Your task to perform on an android device: open app "AliExpress" (install if not already installed), go to login, and select forgot password Image 0: 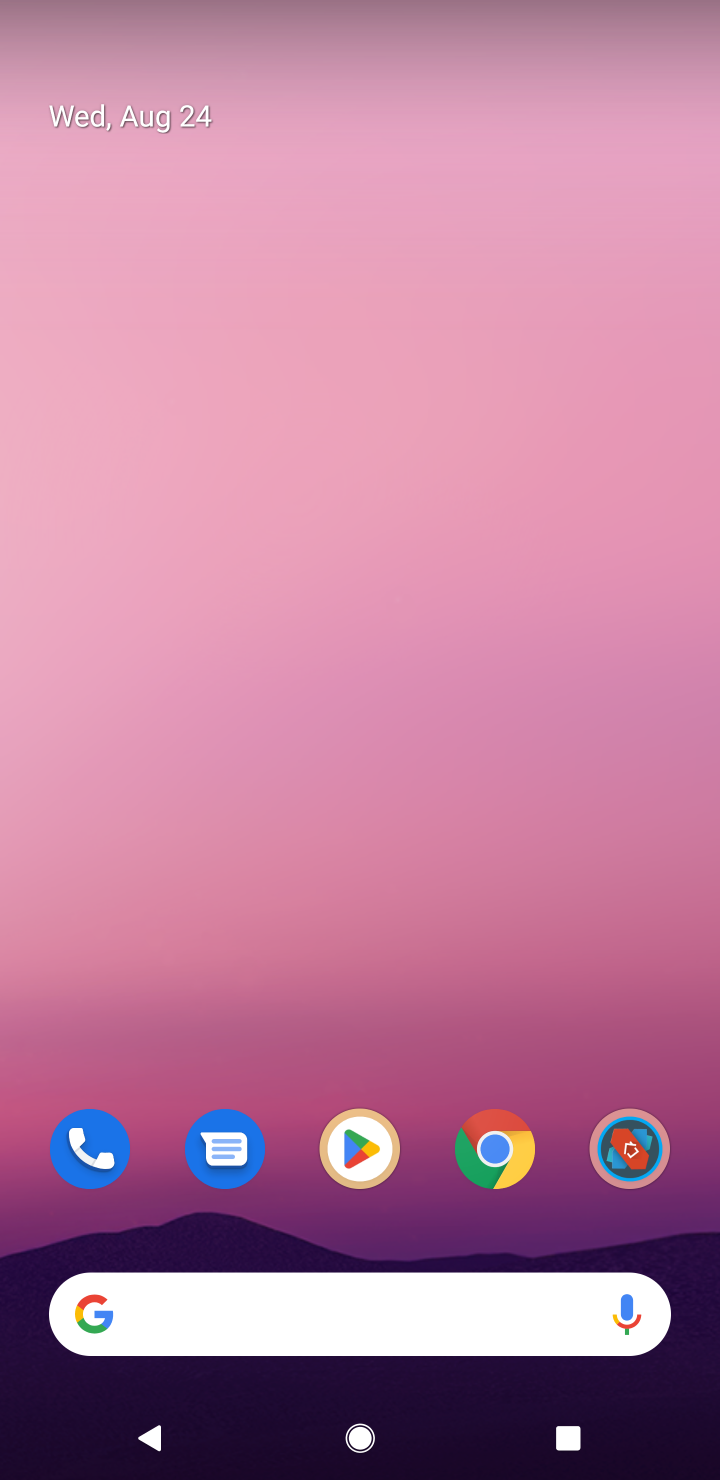
Step 0: click (365, 1146)
Your task to perform on an android device: open app "AliExpress" (install if not already installed), go to login, and select forgot password Image 1: 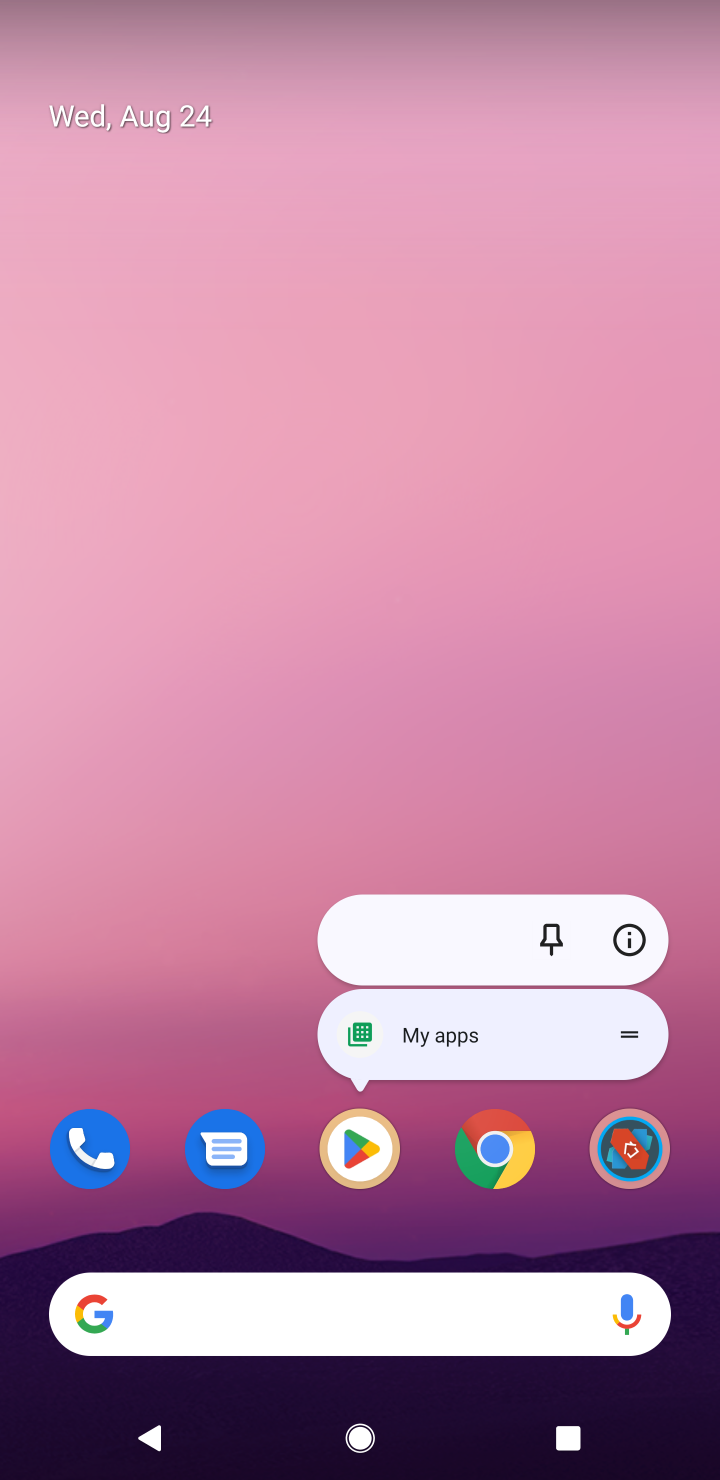
Step 1: click (374, 1151)
Your task to perform on an android device: open app "AliExpress" (install if not already installed), go to login, and select forgot password Image 2: 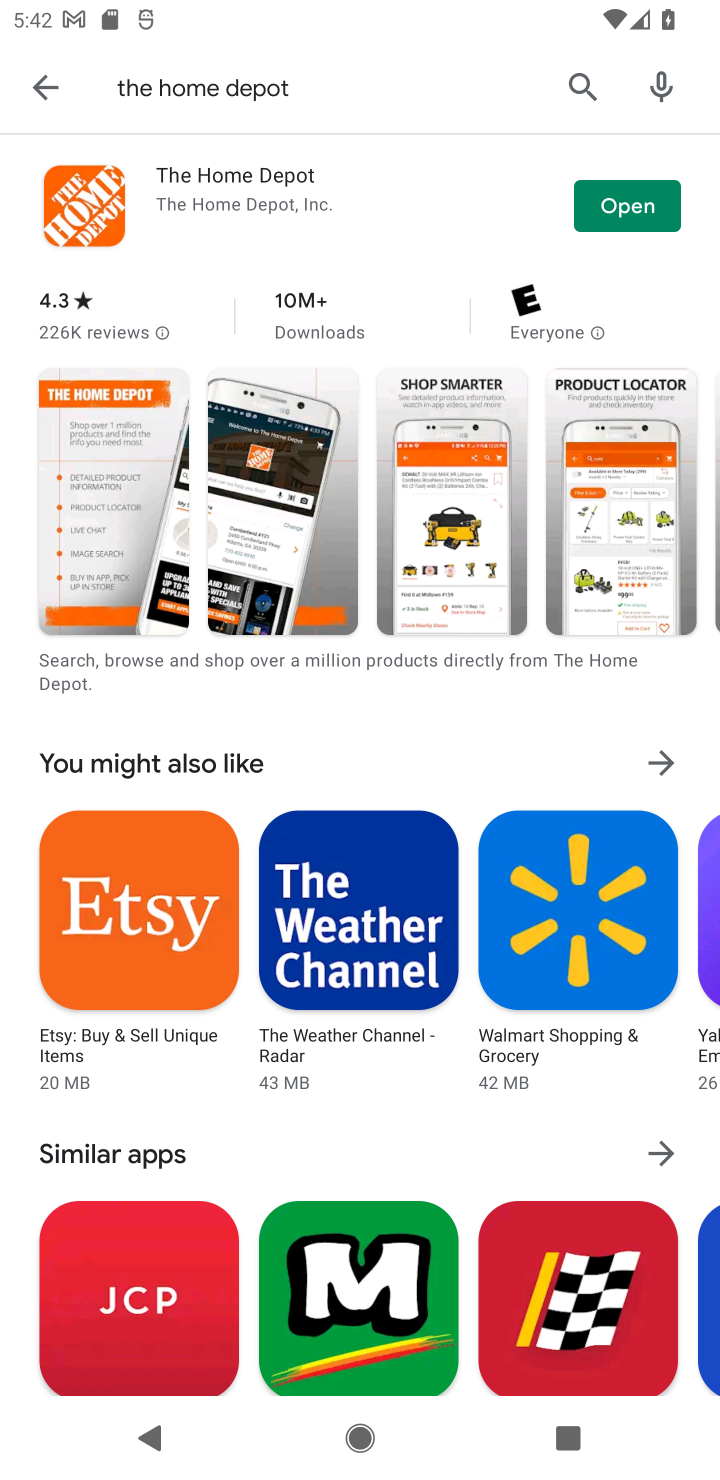
Step 2: click (572, 76)
Your task to perform on an android device: open app "AliExpress" (install if not already installed), go to login, and select forgot password Image 3: 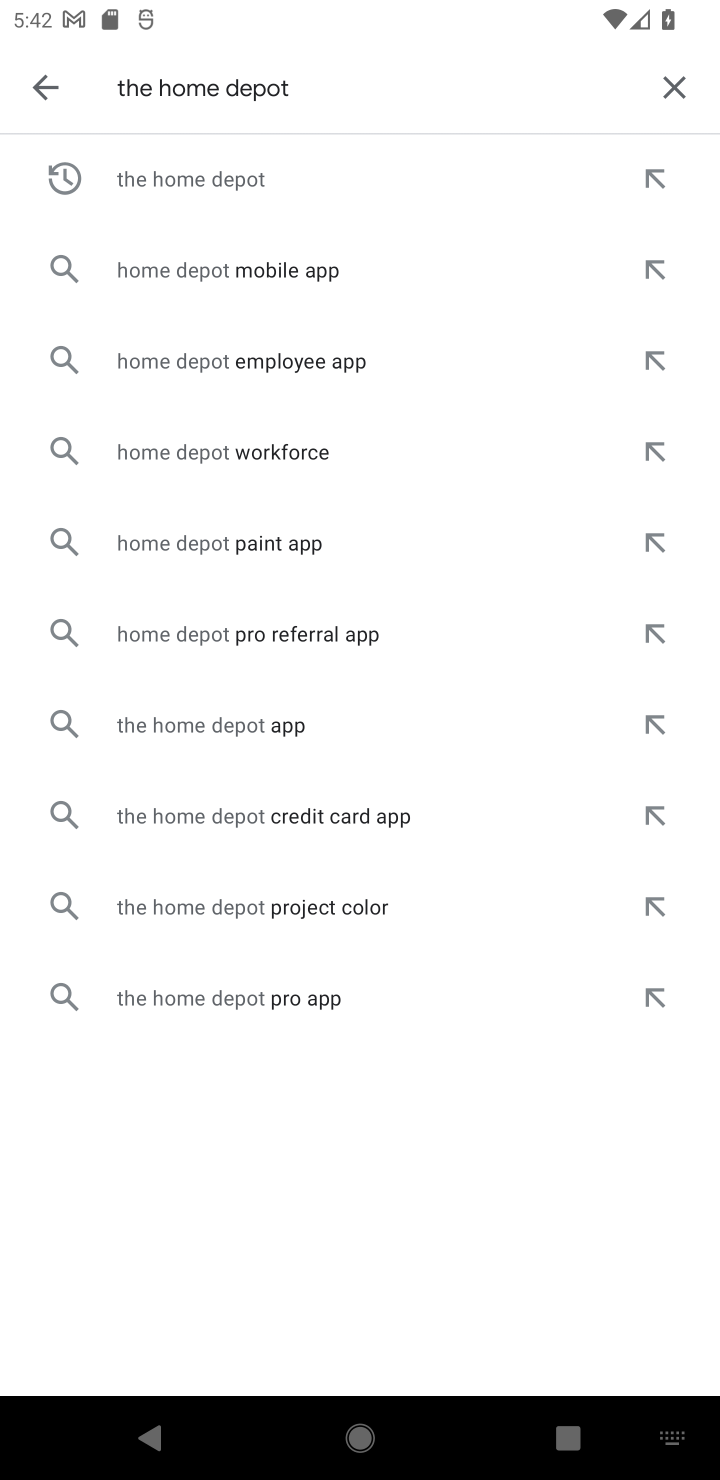
Step 3: click (667, 93)
Your task to perform on an android device: open app "AliExpress" (install if not already installed), go to login, and select forgot password Image 4: 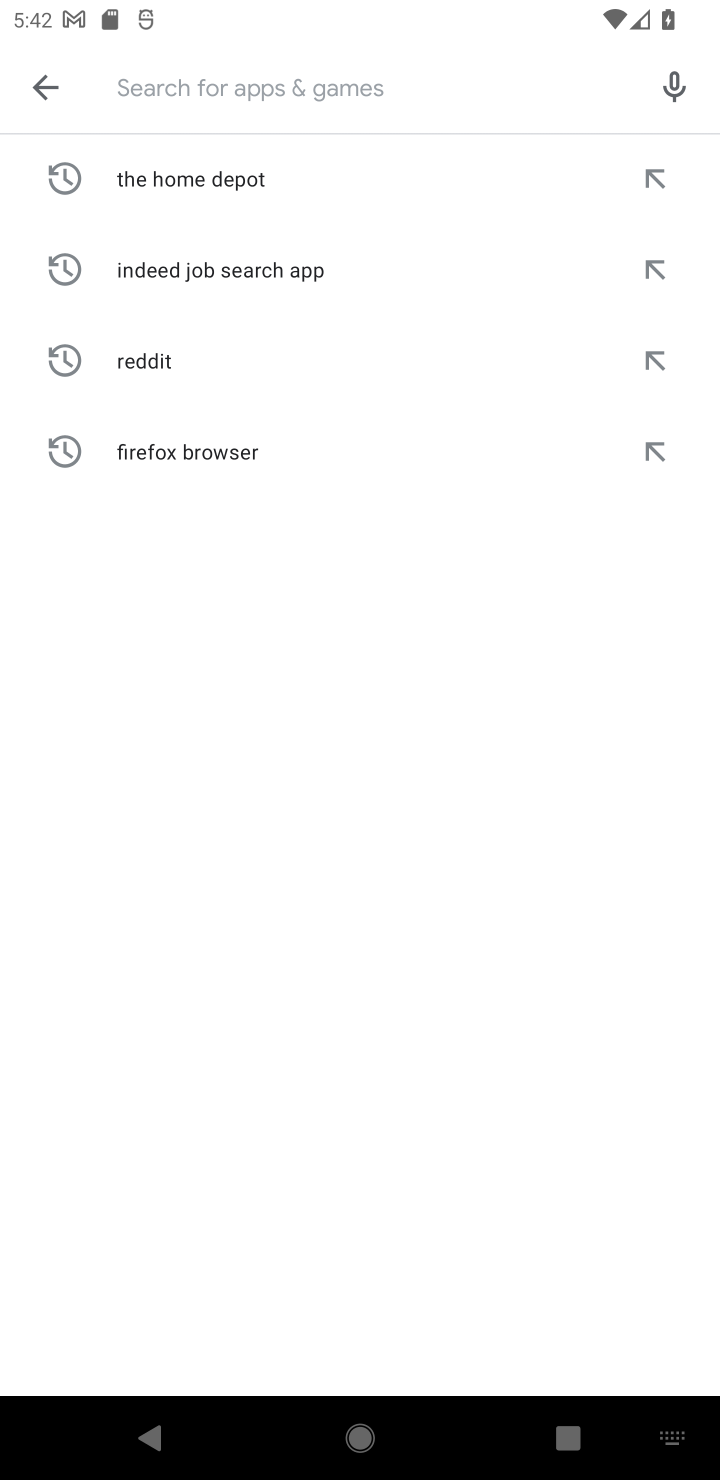
Step 4: type "AliExpress"
Your task to perform on an android device: open app "AliExpress" (install if not already installed), go to login, and select forgot password Image 5: 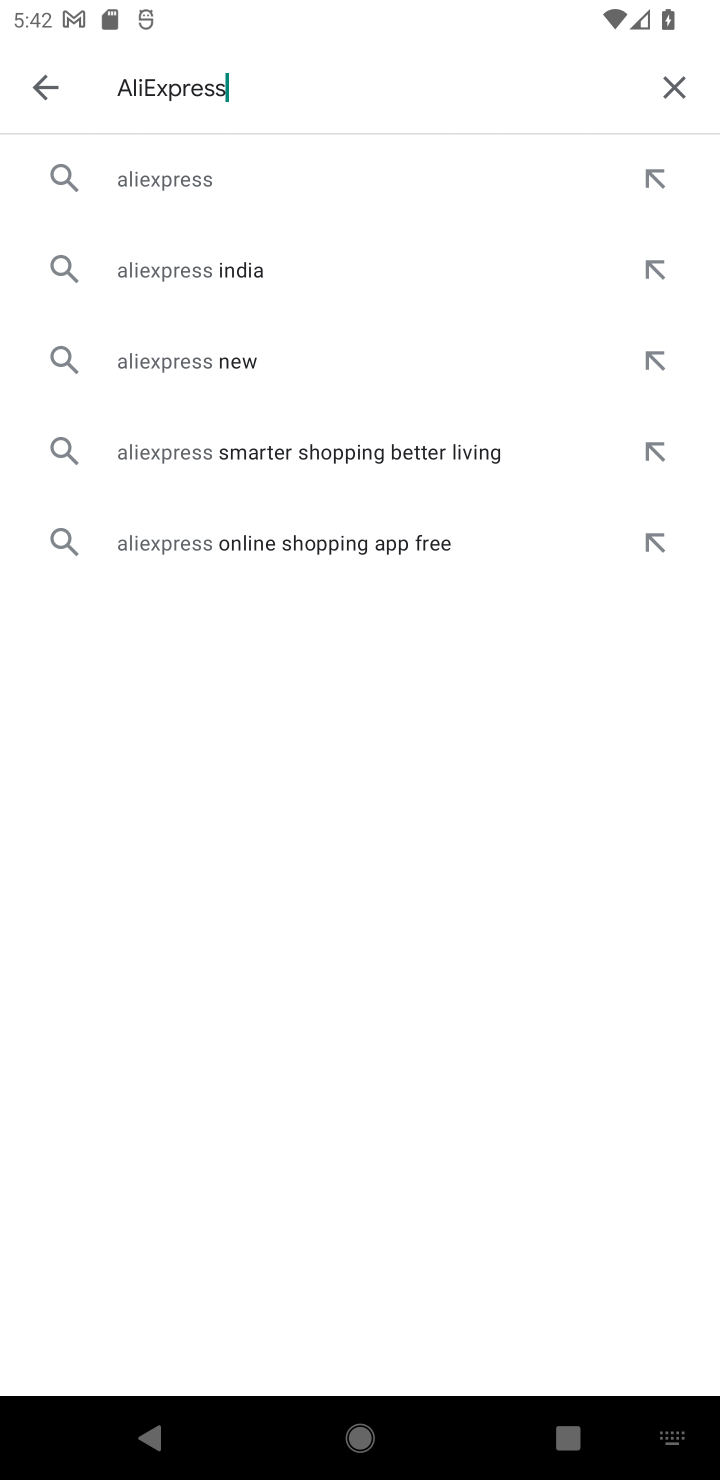
Step 5: click (170, 171)
Your task to perform on an android device: open app "AliExpress" (install if not already installed), go to login, and select forgot password Image 6: 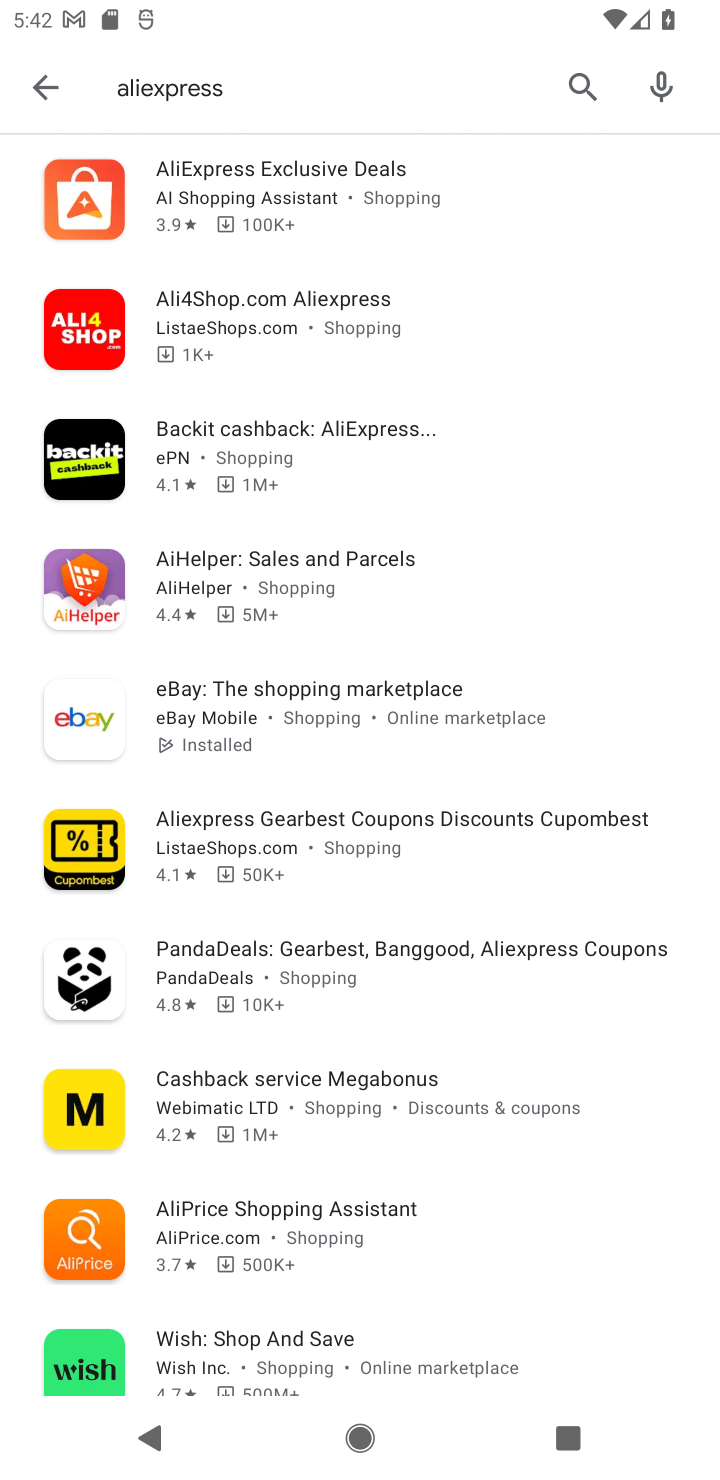
Step 6: click (281, 188)
Your task to perform on an android device: open app "AliExpress" (install if not already installed), go to login, and select forgot password Image 7: 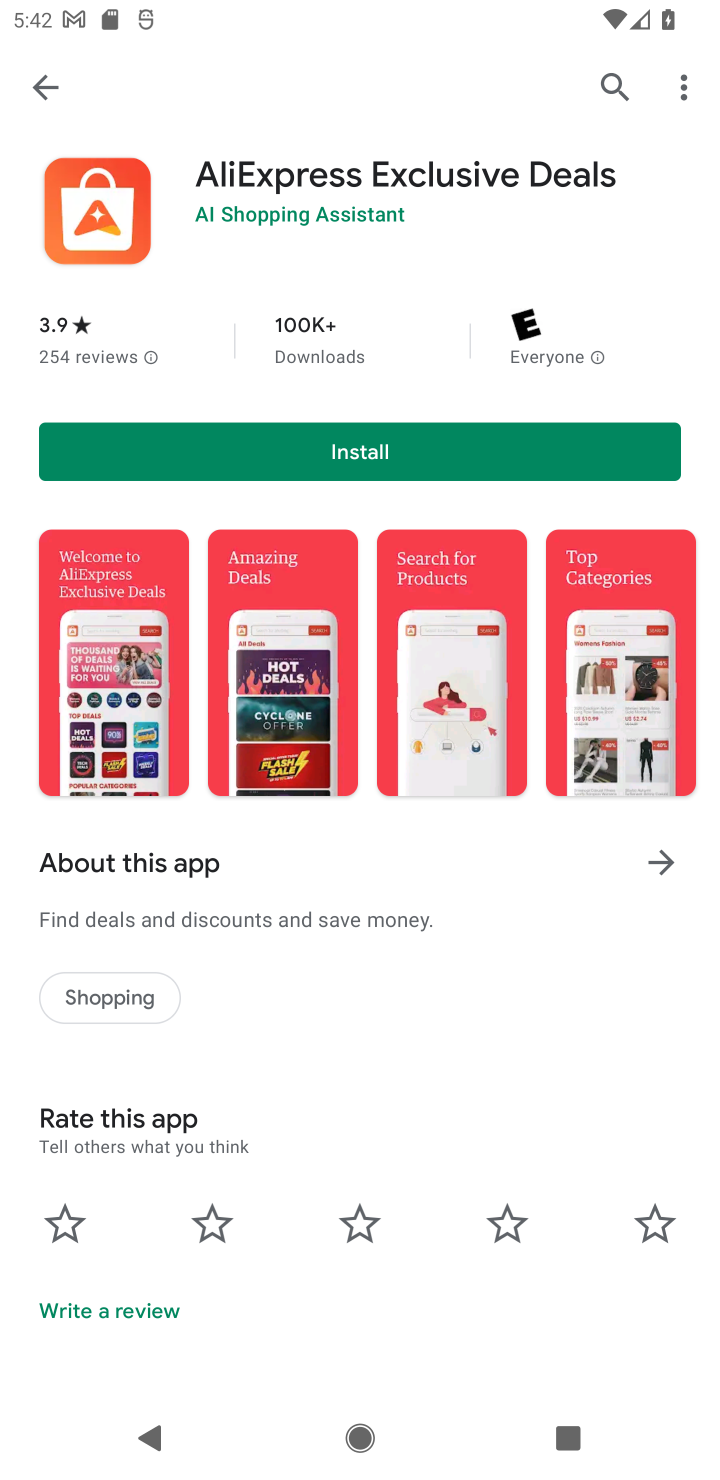
Step 7: click (352, 450)
Your task to perform on an android device: open app "AliExpress" (install if not already installed), go to login, and select forgot password Image 8: 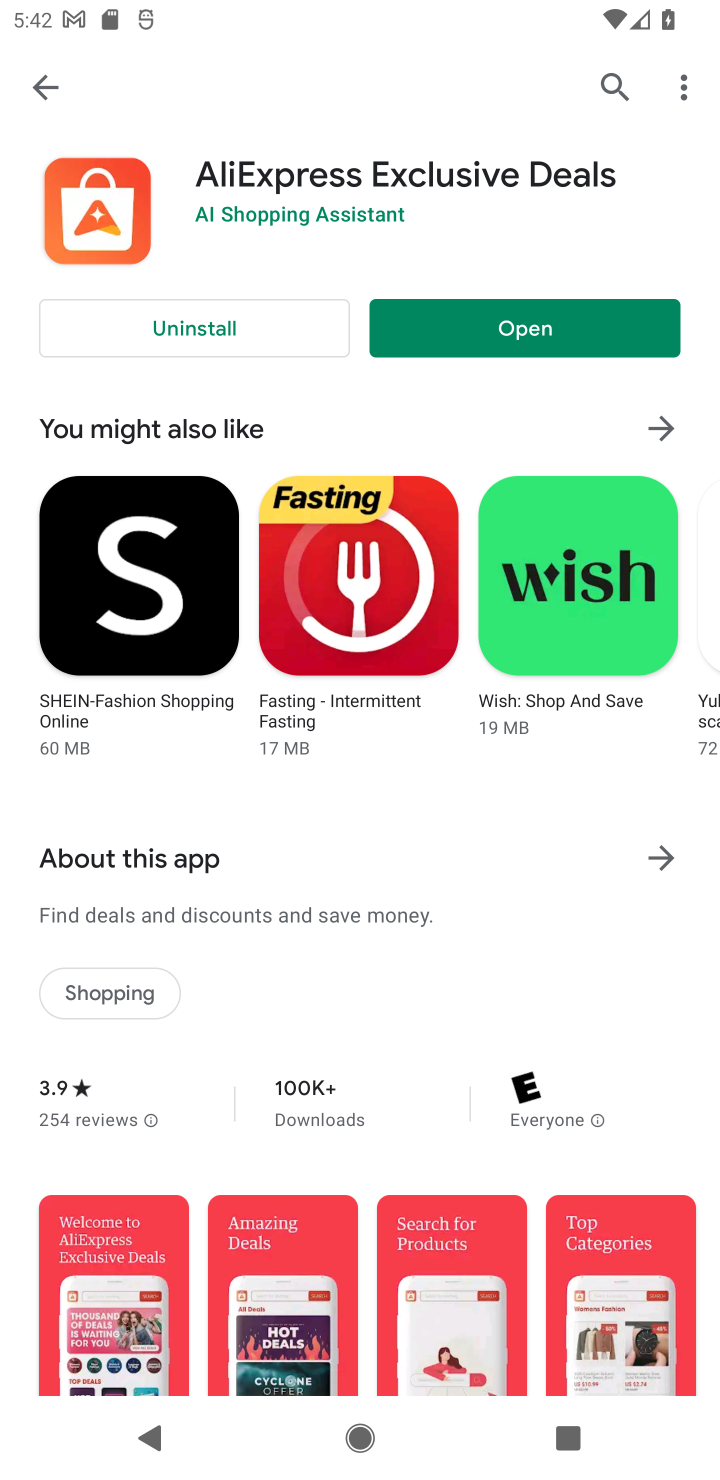
Step 8: click (489, 337)
Your task to perform on an android device: open app "AliExpress" (install if not already installed), go to login, and select forgot password Image 9: 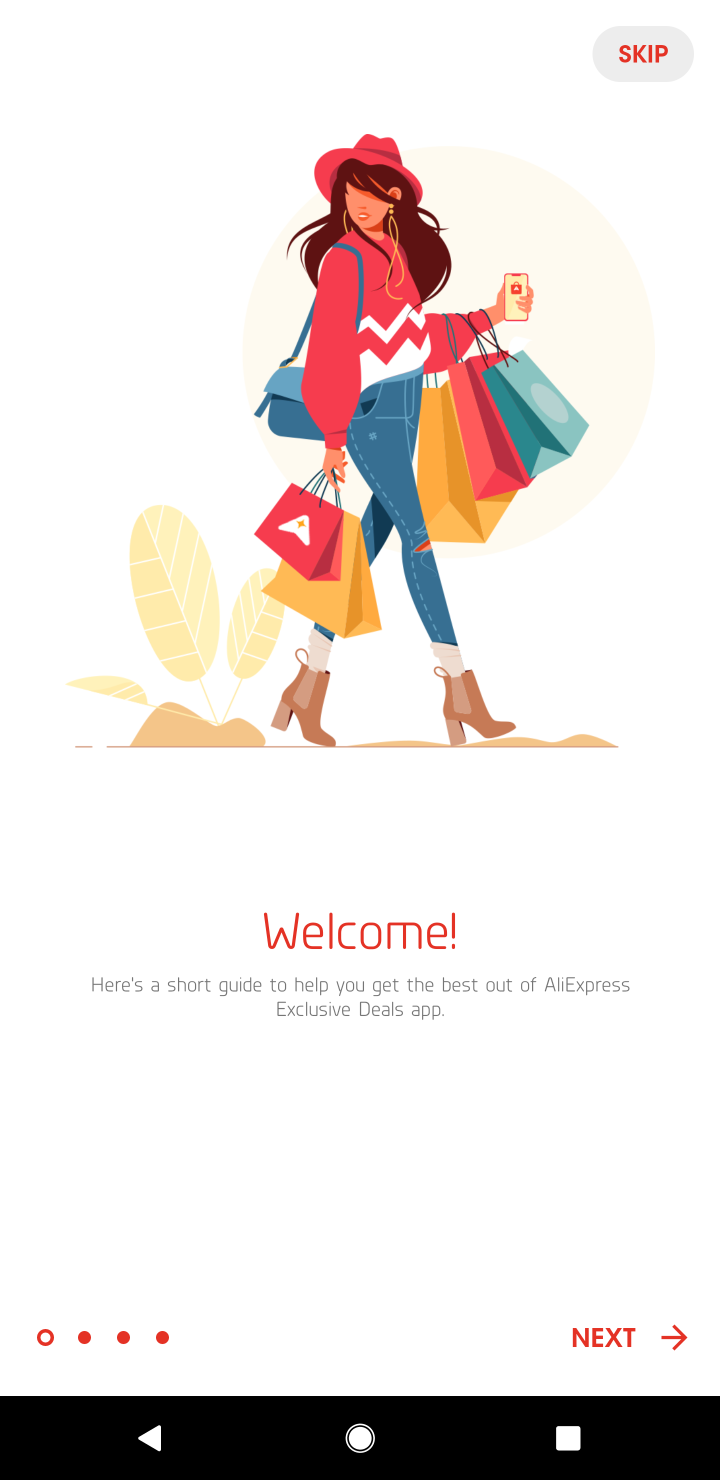
Step 9: click (592, 1337)
Your task to perform on an android device: open app "AliExpress" (install if not already installed), go to login, and select forgot password Image 10: 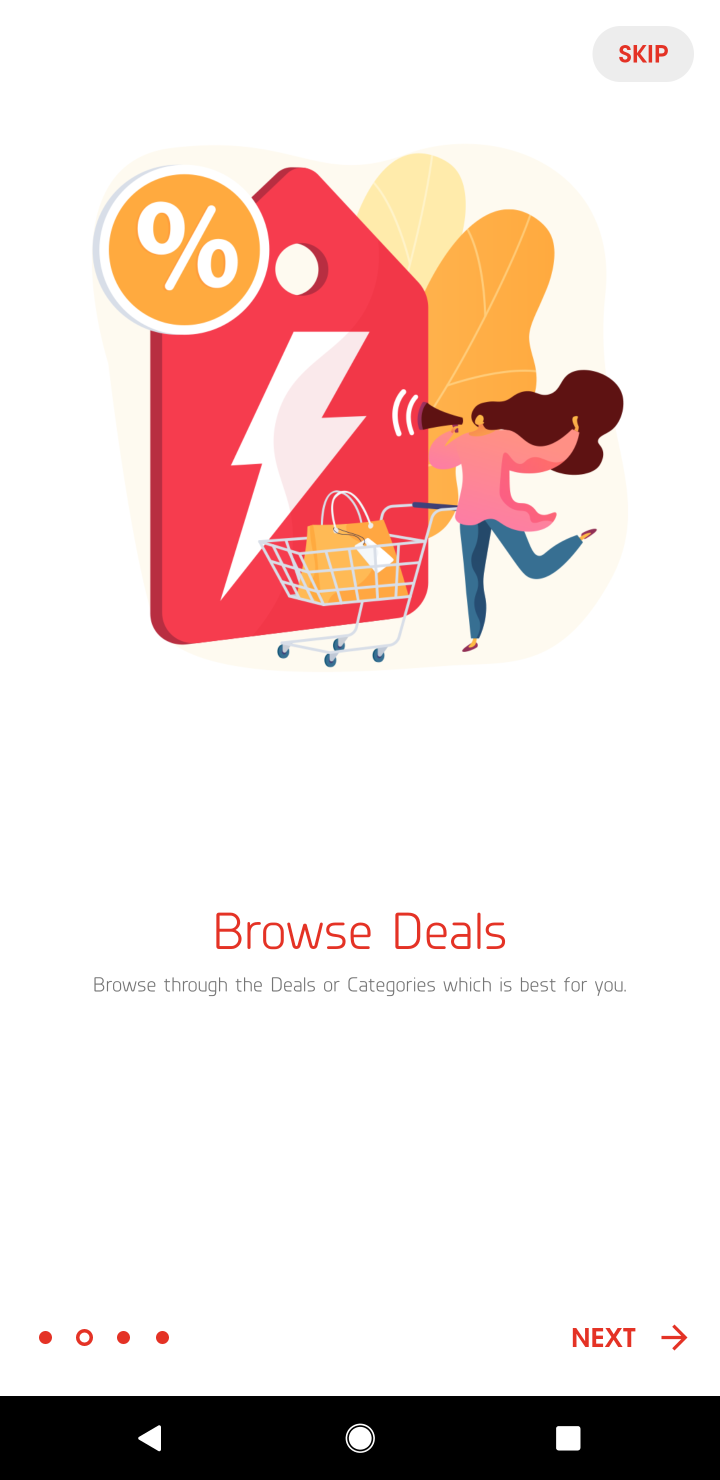
Step 10: click (628, 1335)
Your task to perform on an android device: open app "AliExpress" (install if not already installed), go to login, and select forgot password Image 11: 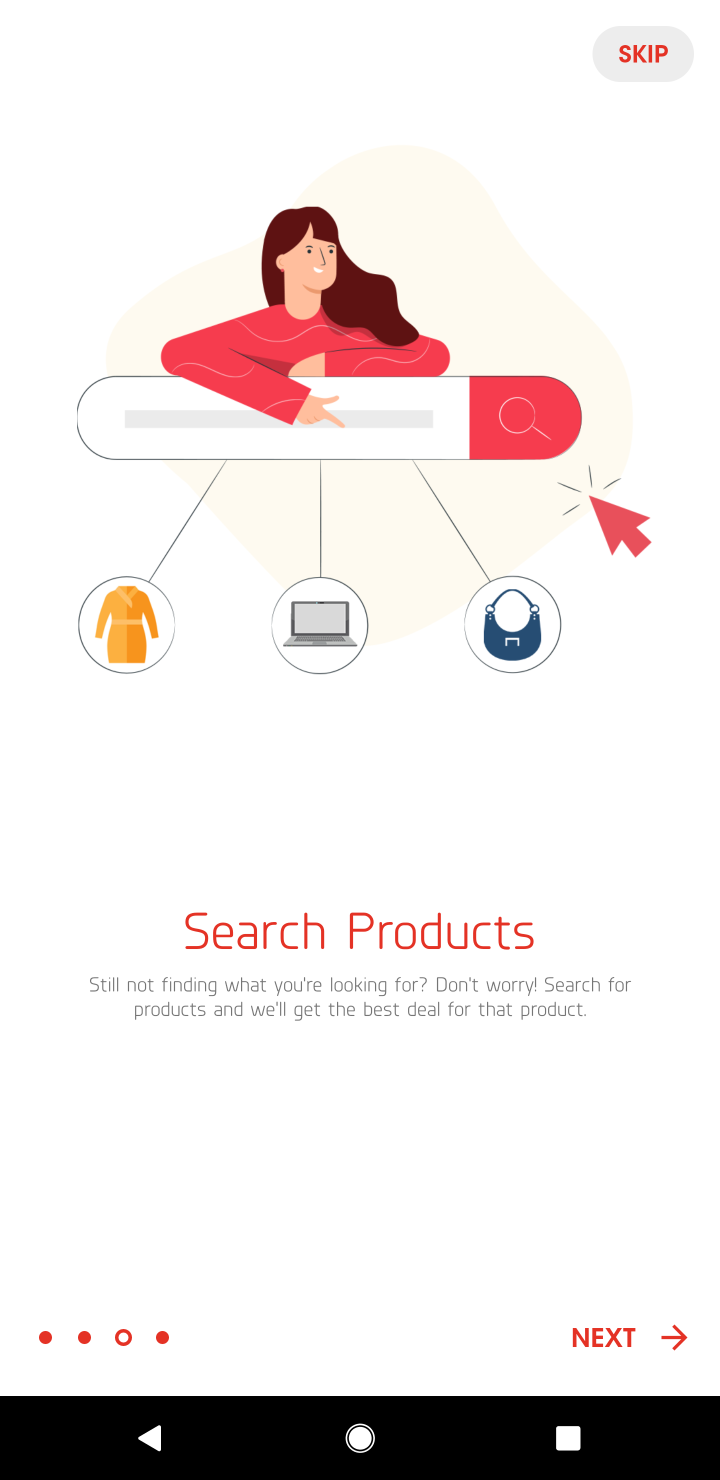
Step 11: click (628, 1337)
Your task to perform on an android device: open app "AliExpress" (install if not already installed), go to login, and select forgot password Image 12: 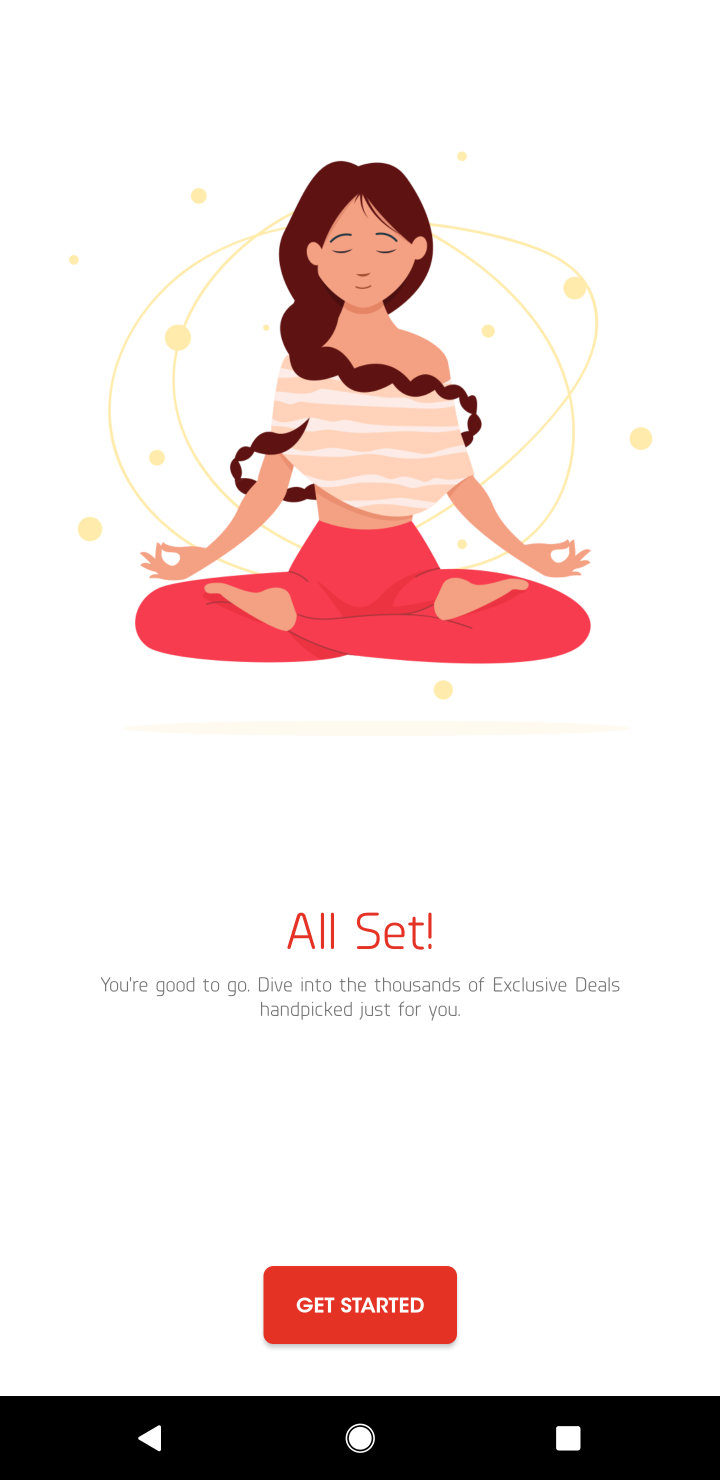
Step 12: click (411, 1318)
Your task to perform on an android device: open app "AliExpress" (install if not already installed), go to login, and select forgot password Image 13: 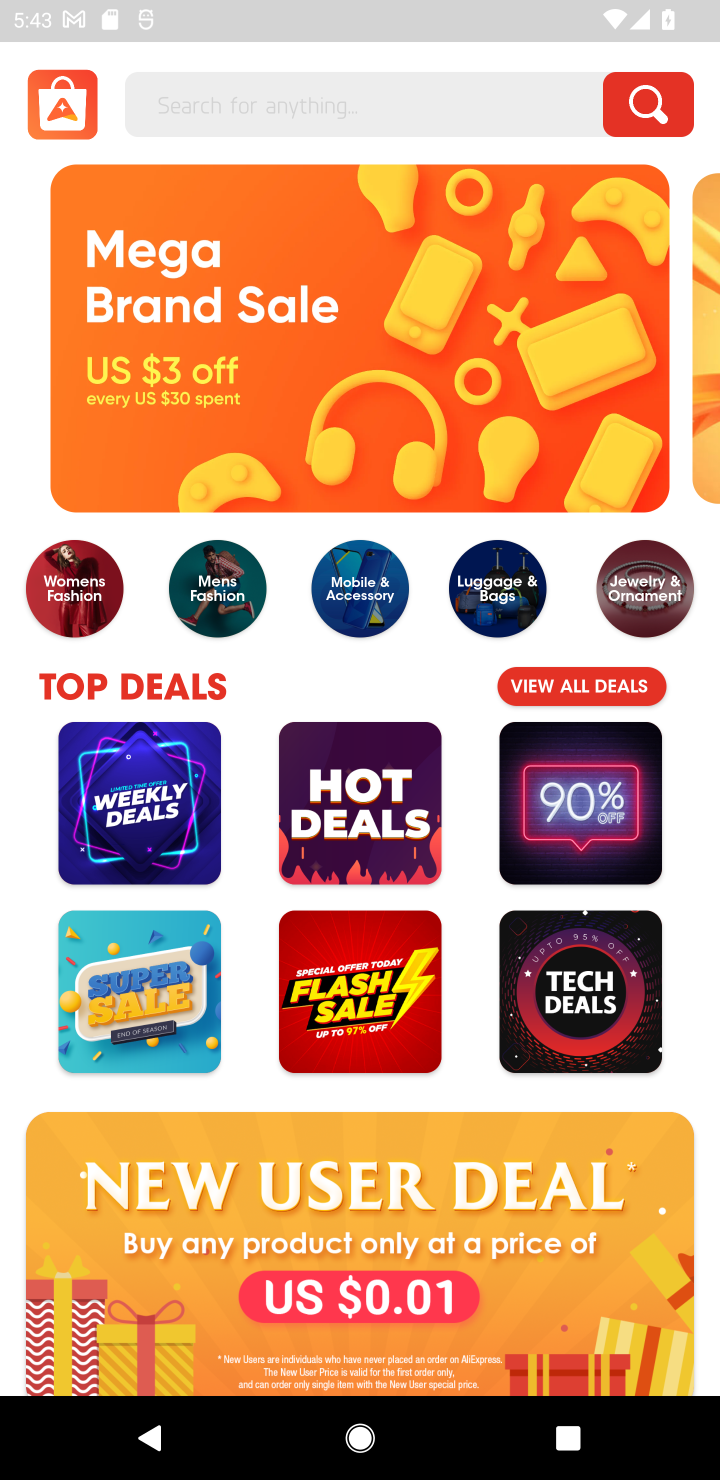
Step 13: task complete